Your task to perform on an android device: open the mobile data screen to see how much data has been used Image 0: 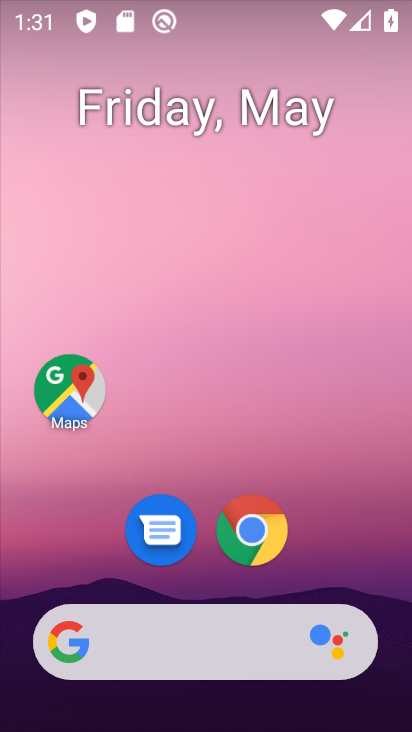
Step 0: drag from (321, 567) to (248, 69)
Your task to perform on an android device: open the mobile data screen to see how much data has been used Image 1: 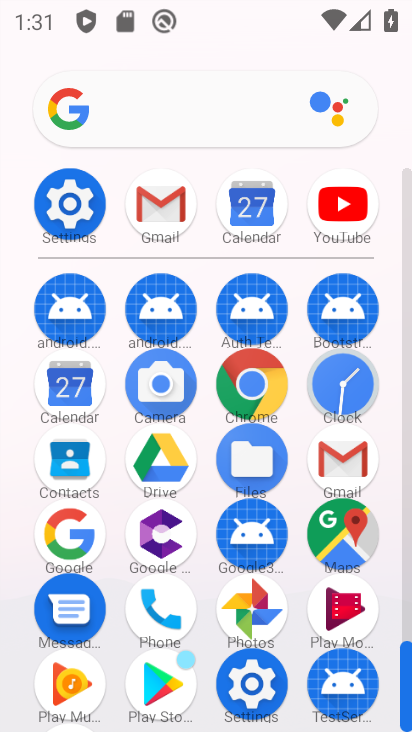
Step 1: click (53, 204)
Your task to perform on an android device: open the mobile data screen to see how much data has been used Image 2: 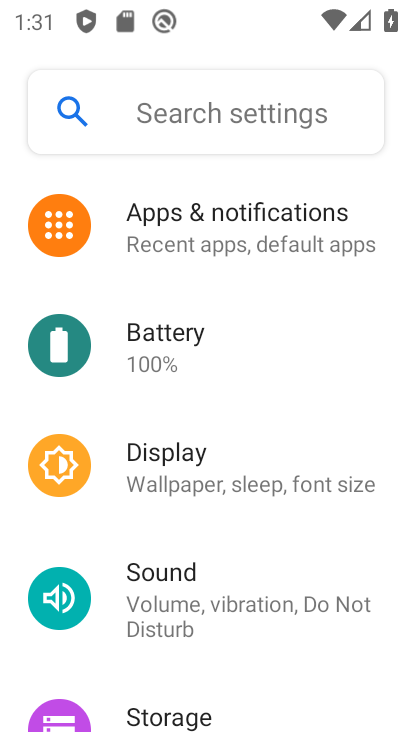
Step 2: drag from (242, 276) to (268, 724)
Your task to perform on an android device: open the mobile data screen to see how much data has been used Image 3: 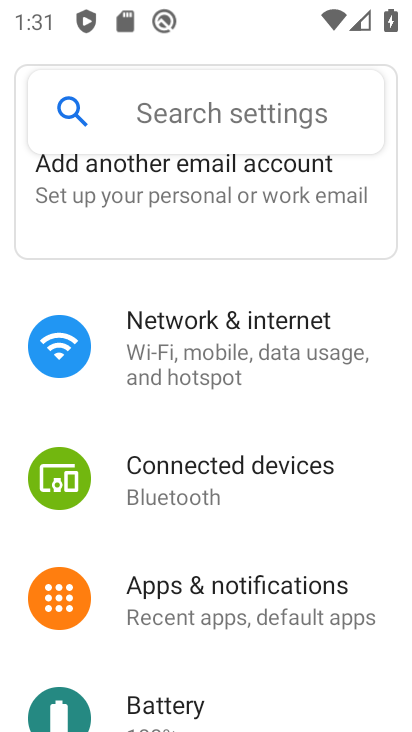
Step 3: click (238, 348)
Your task to perform on an android device: open the mobile data screen to see how much data has been used Image 4: 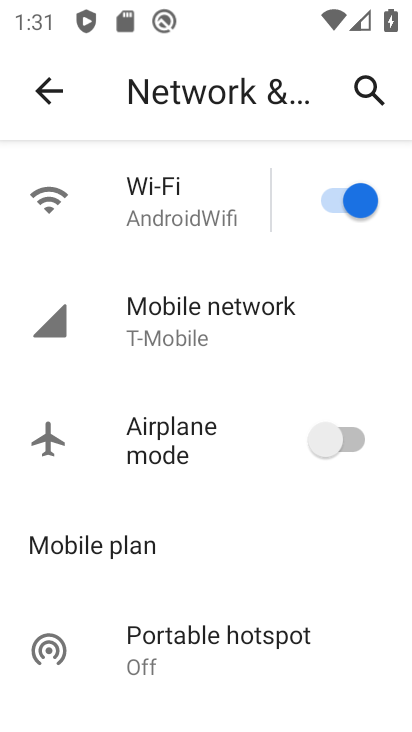
Step 4: click (145, 336)
Your task to perform on an android device: open the mobile data screen to see how much data has been used Image 5: 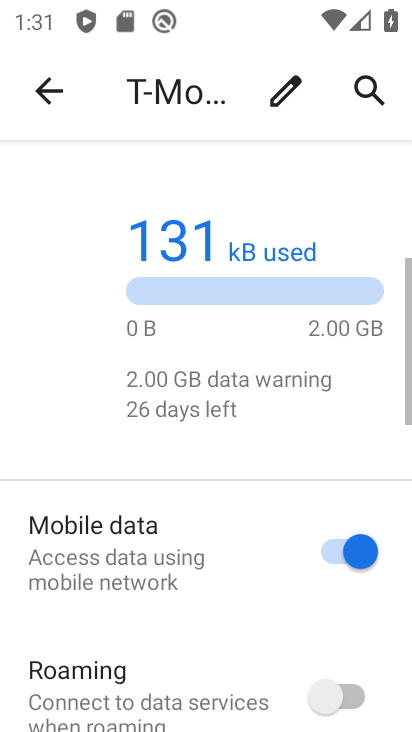
Step 5: drag from (183, 585) to (130, 222)
Your task to perform on an android device: open the mobile data screen to see how much data has been used Image 6: 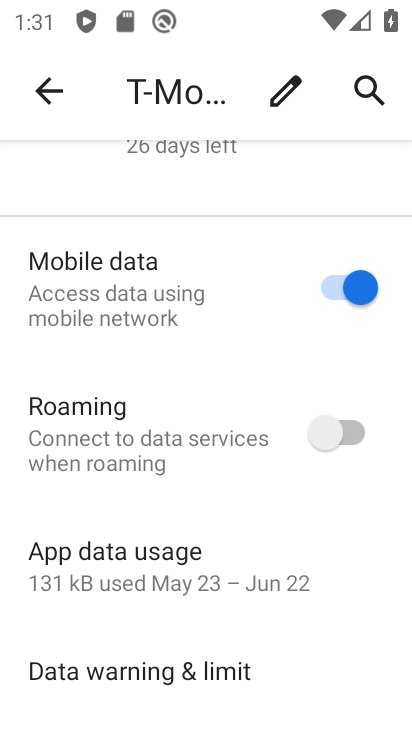
Step 6: click (125, 571)
Your task to perform on an android device: open the mobile data screen to see how much data has been used Image 7: 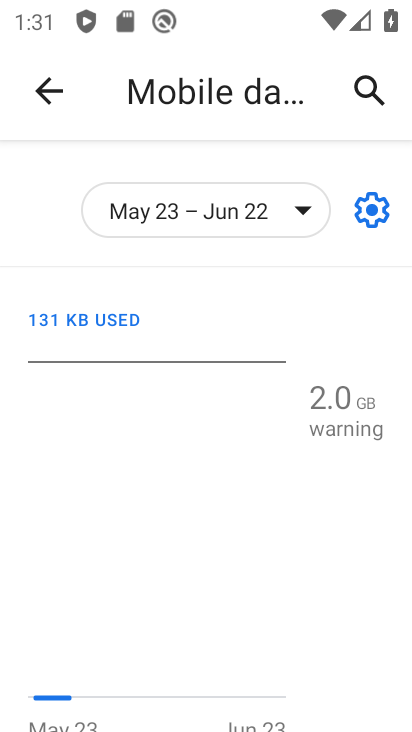
Step 7: task complete